Your task to perform on an android device: add a contact Image 0: 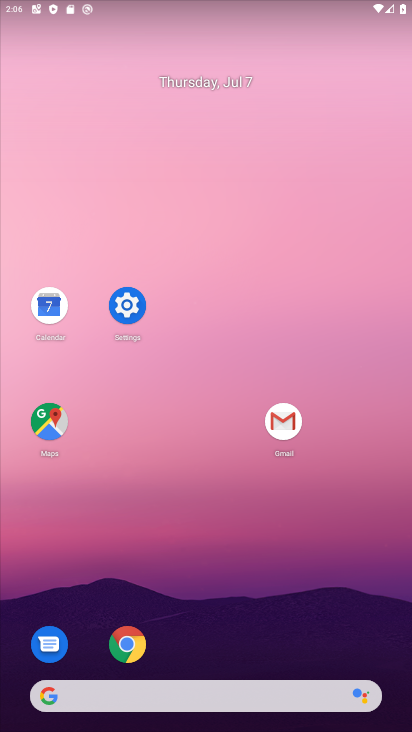
Step 0: drag from (388, 681) to (340, 122)
Your task to perform on an android device: add a contact Image 1: 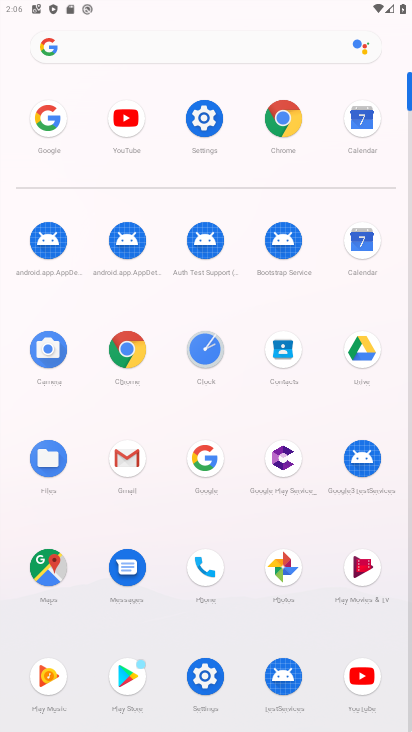
Step 1: click (281, 358)
Your task to perform on an android device: add a contact Image 2: 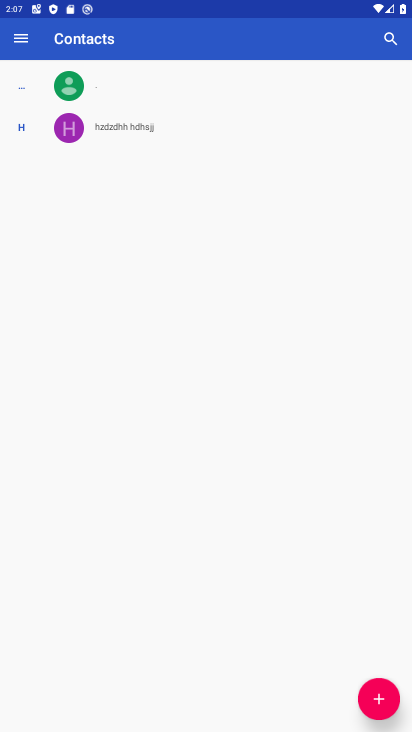
Step 2: click (389, 685)
Your task to perform on an android device: add a contact Image 3: 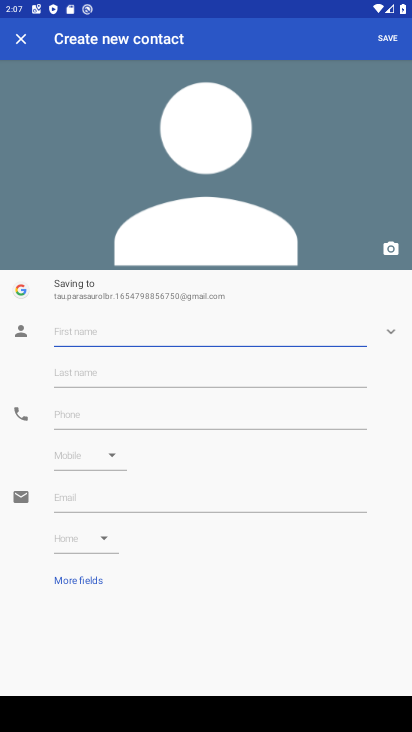
Step 3: type "zseztrcghvytr"
Your task to perform on an android device: add a contact Image 4: 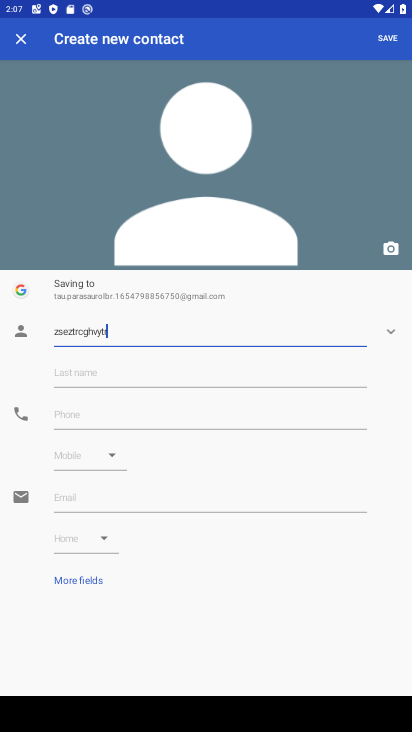
Step 4: click (70, 373)
Your task to perform on an android device: add a contact Image 5: 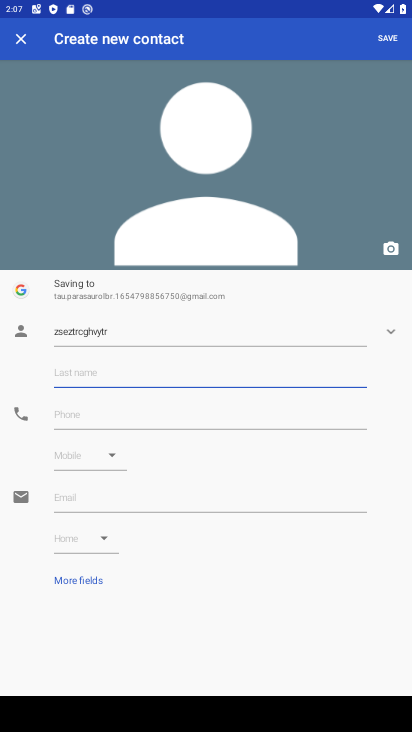
Step 5: type "fjsrdcluvh"
Your task to perform on an android device: add a contact Image 6: 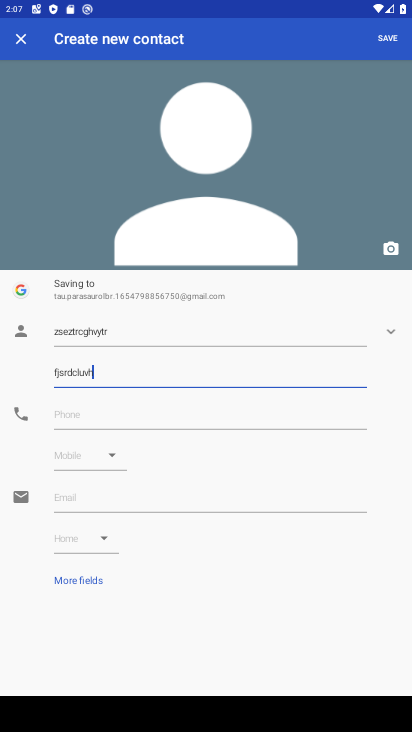
Step 6: click (62, 404)
Your task to perform on an android device: add a contact Image 7: 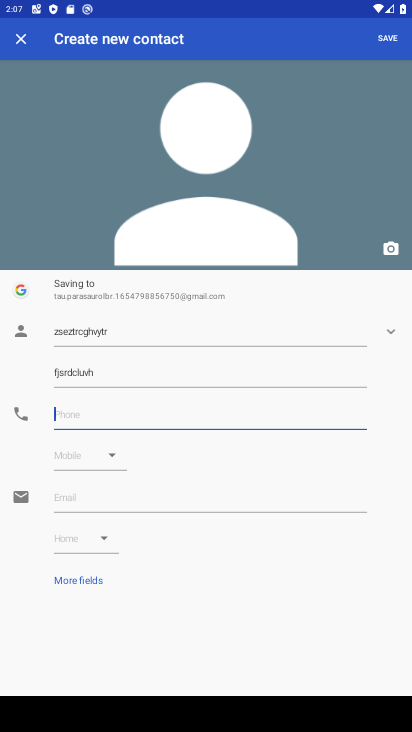
Step 7: type "52264346356"
Your task to perform on an android device: add a contact Image 8: 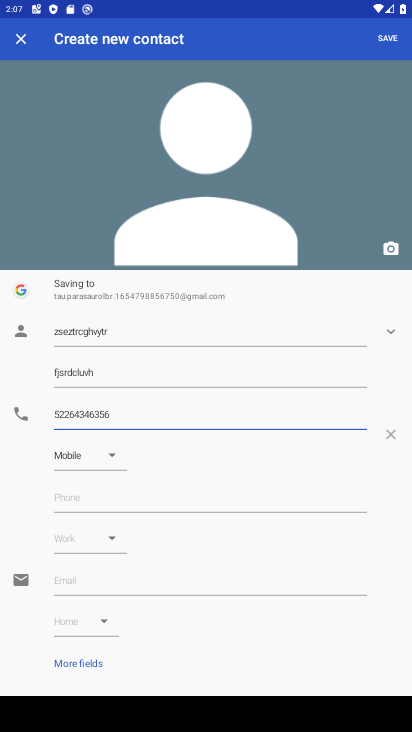
Step 8: click (387, 34)
Your task to perform on an android device: add a contact Image 9: 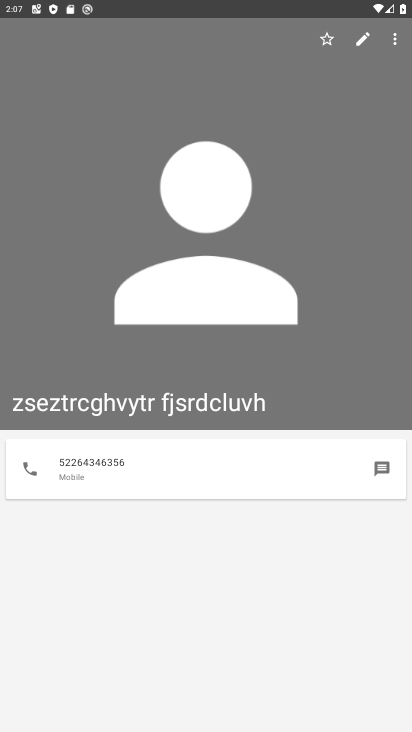
Step 9: task complete